Your task to perform on an android device: open app "Google Docs" (install if not already installed) Image 0: 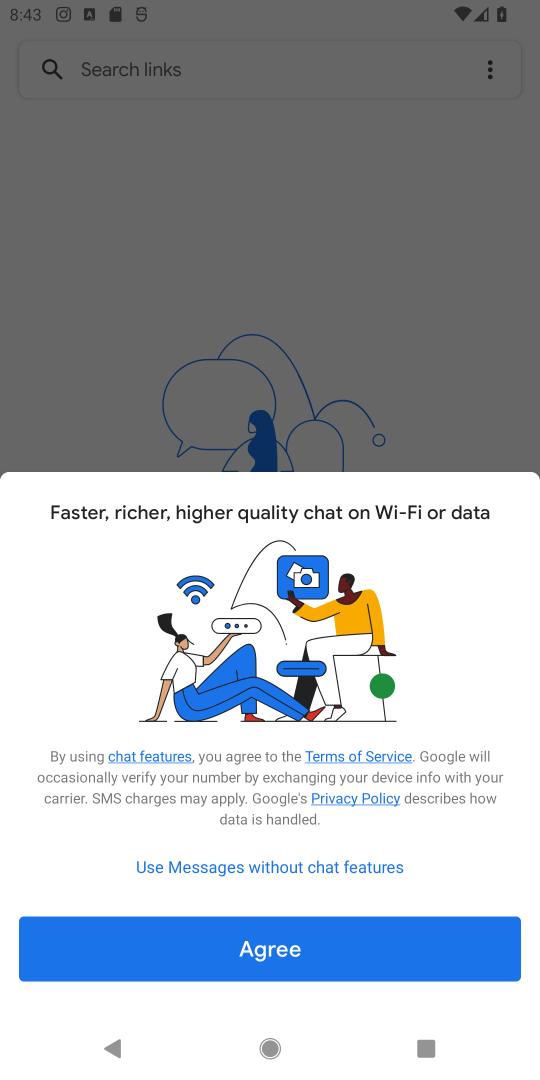
Step 0: press home button
Your task to perform on an android device: open app "Google Docs" (install if not already installed) Image 1: 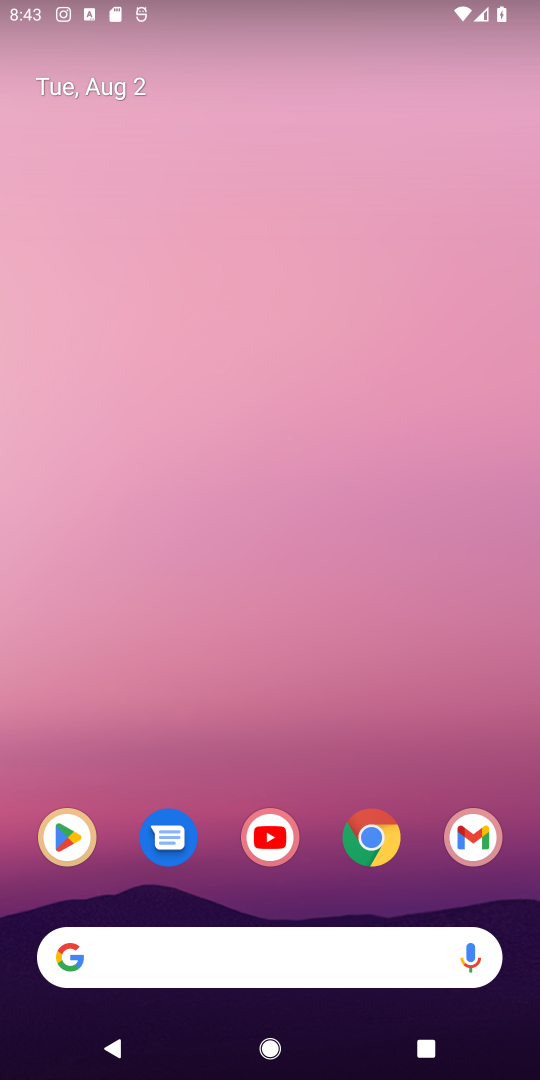
Step 1: click (74, 850)
Your task to perform on an android device: open app "Google Docs" (install if not already installed) Image 2: 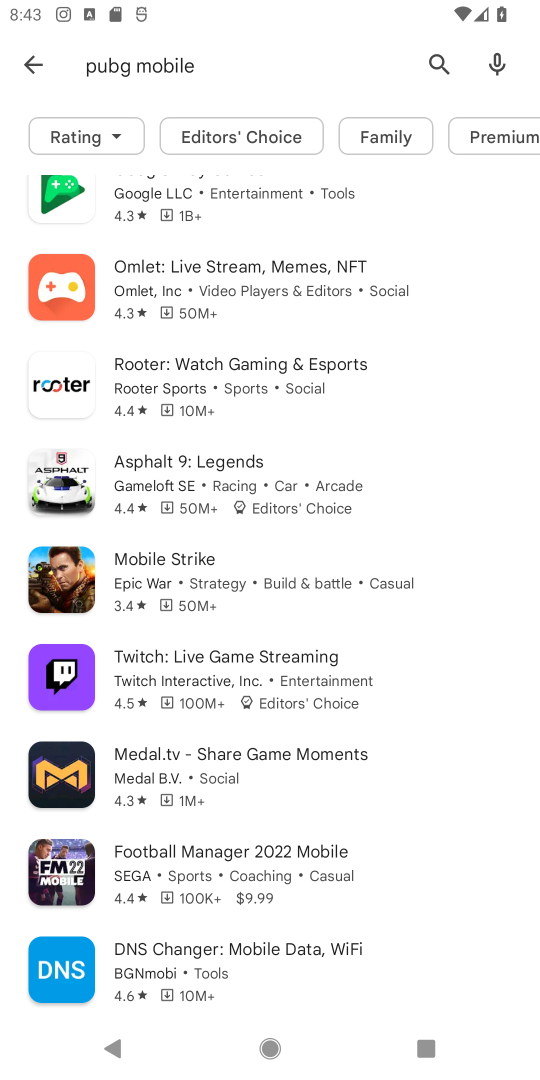
Step 2: click (438, 65)
Your task to perform on an android device: open app "Google Docs" (install if not already installed) Image 3: 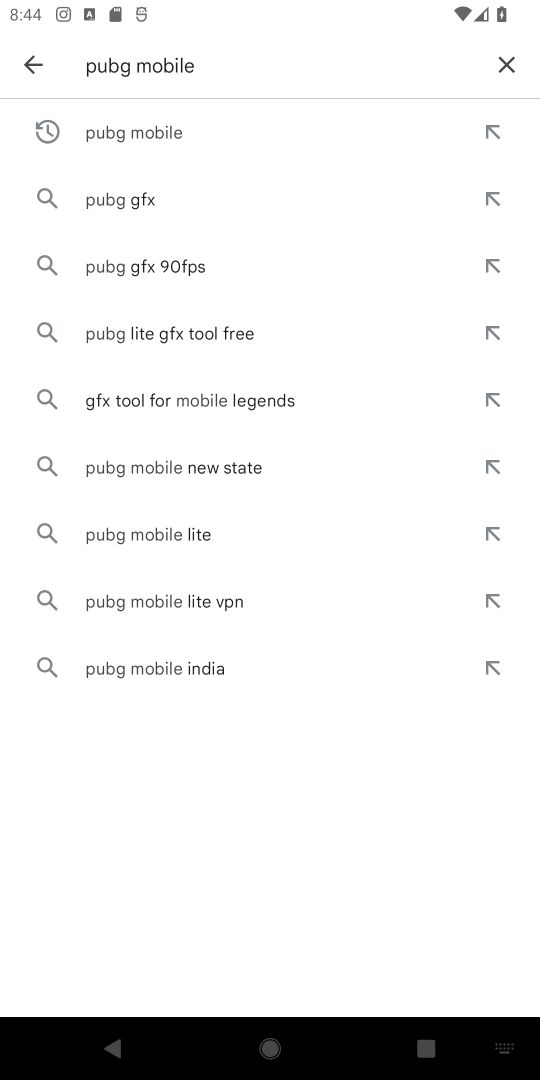
Step 3: click (507, 67)
Your task to perform on an android device: open app "Google Docs" (install if not already installed) Image 4: 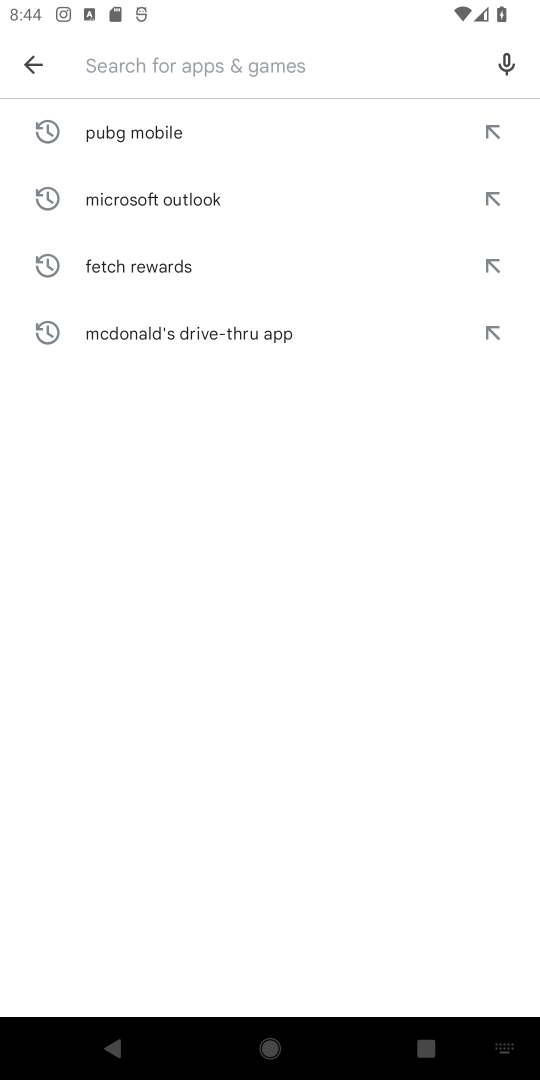
Step 4: type "Google Docs"
Your task to perform on an android device: open app "Google Docs" (install if not already installed) Image 5: 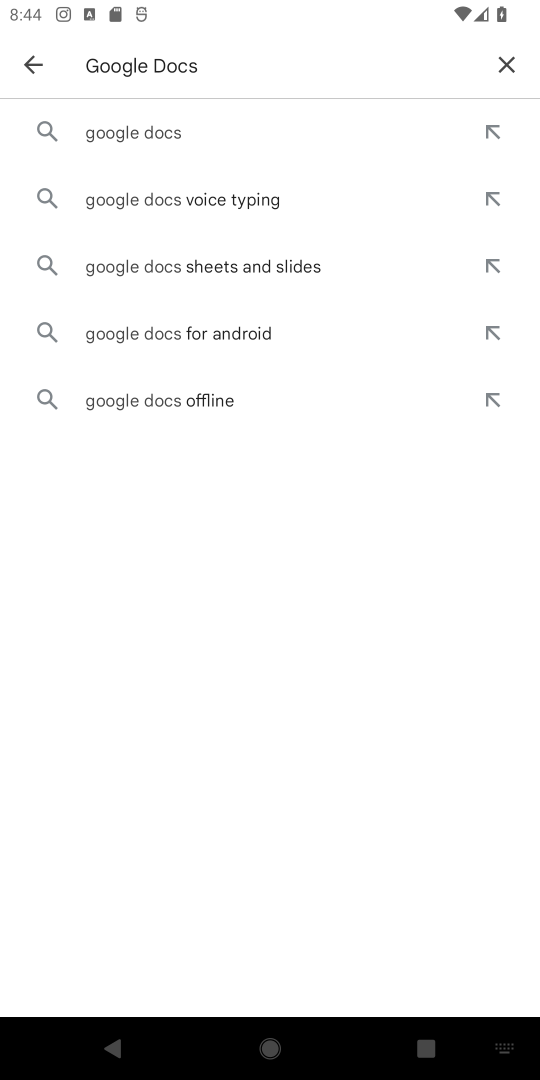
Step 5: click (111, 144)
Your task to perform on an android device: open app "Google Docs" (install if not already installed) Image 6: 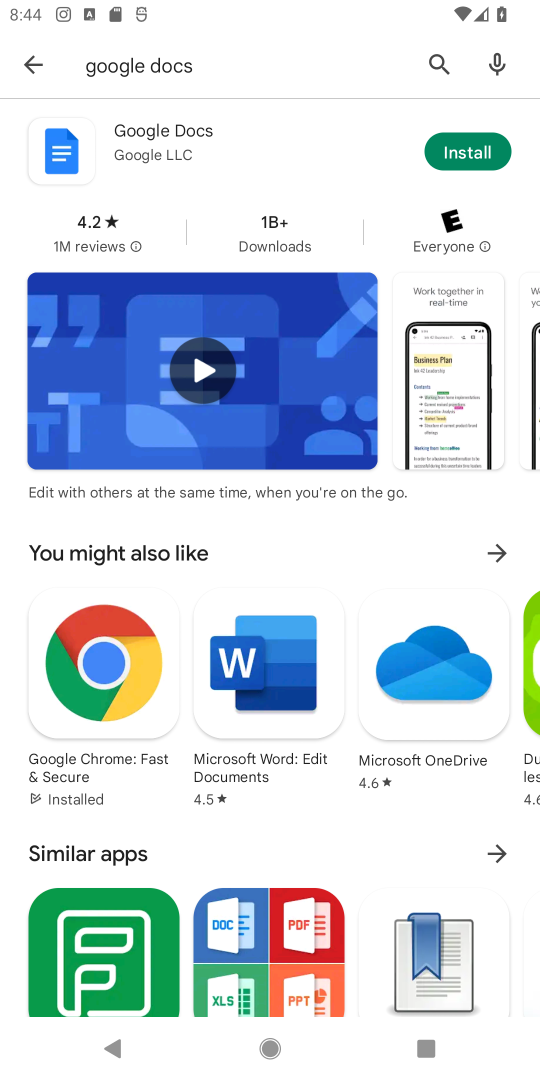
Step 6: click (453, 163)
Your task to perform on an android device: open app "Google Docs" (install if not already installed) Image 7: 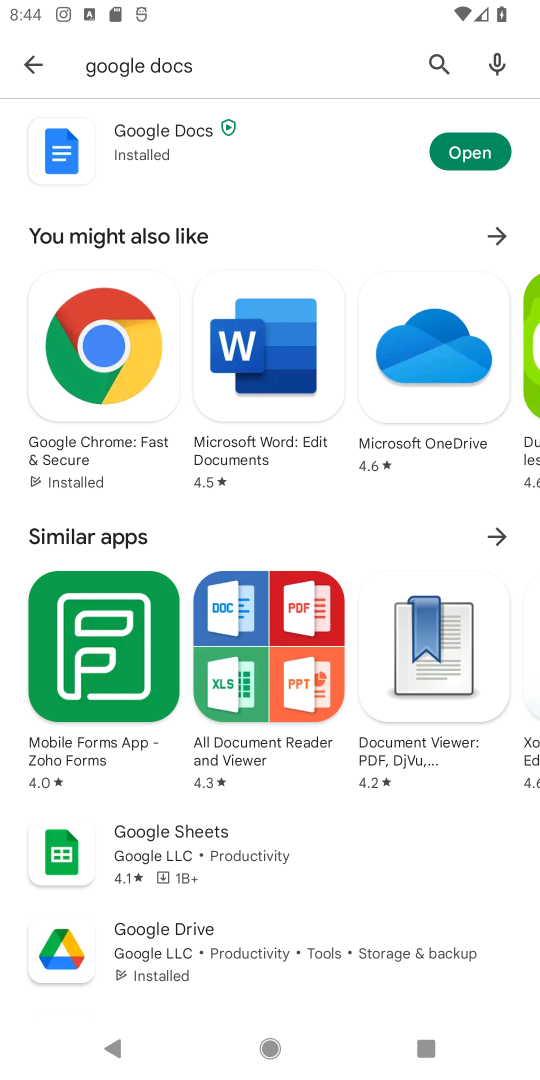
Step 7: click (475, 155)
Your task to perform on an android device: open app "Google Docs" (install if not already installed) Image 8: 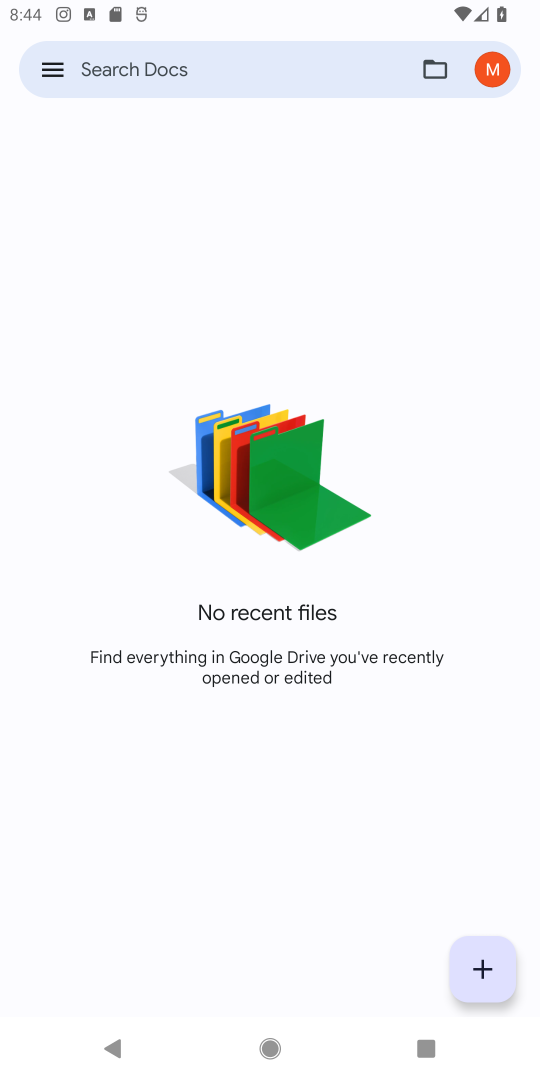
Step 8: task complete